Your task to perform on an android device: Search for pizza restaurants on Maps Image 0: 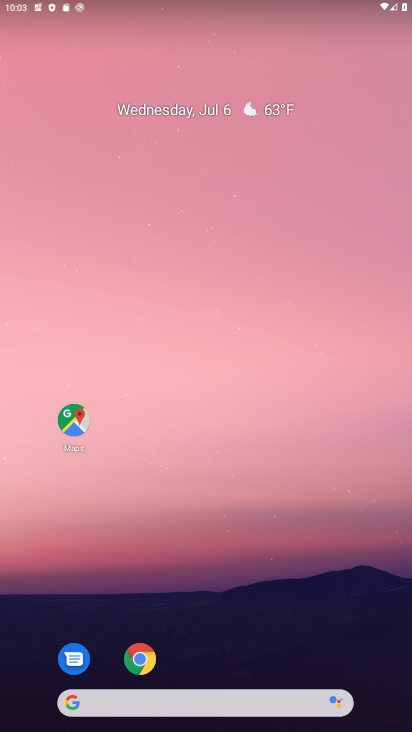
Step 0: drag from (214, 652) to (270, 211)
Your task to perform on an android device: Search for pizza restaurants on Maps Image 1: 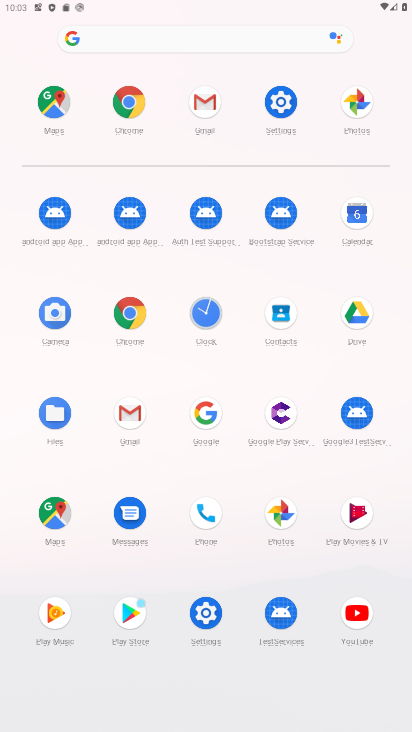
Step 1: click (52, 520)
Your task to perform on an android device: Search for pizza restaurants on Maps Image 2: 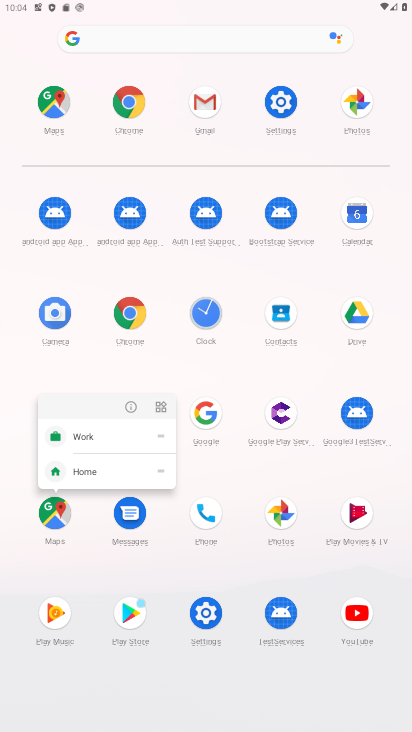
Step 2: click (128, 407)
Your task to perform on an android device: Search for pizza restaurants on Maps Image 3: 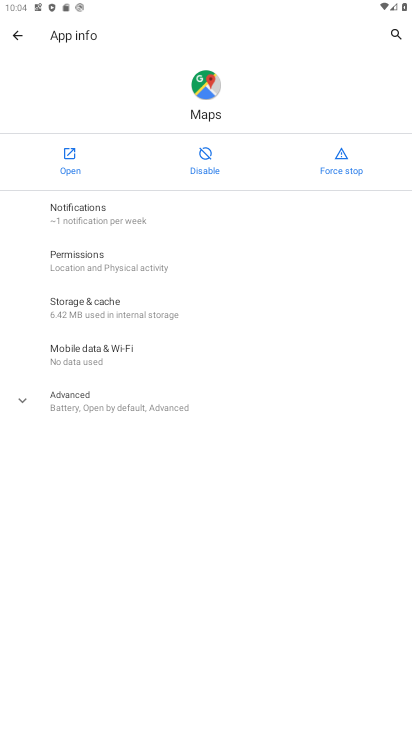
Step 3: click (64, 162)
Your task to perform on an android device: Search for pizza restaurants on Maps Image 4: 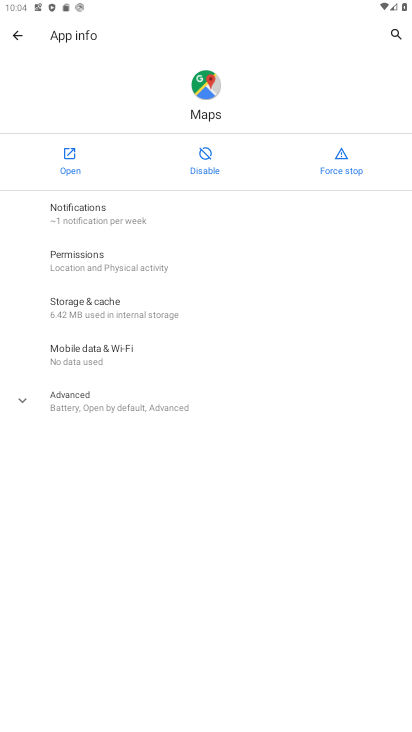
Step 4: click (64, 162)
Your task to perform on an android device: Search for pizza restaurants on Maps Image 5: 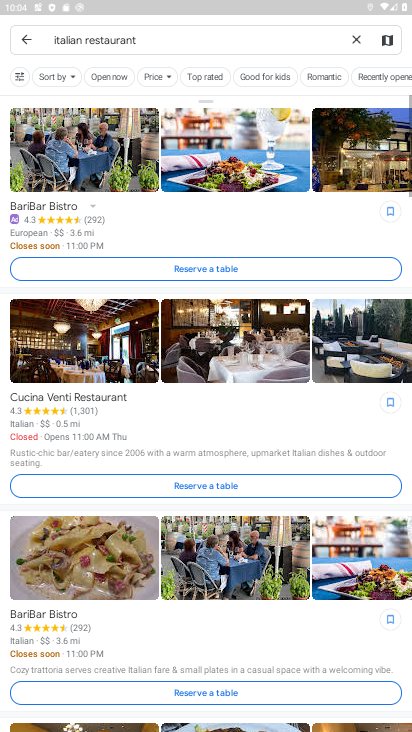
Step 5: click (357, 43)
Your task to perform on an android device: Search for pizza restaurants on Maps Image 6: 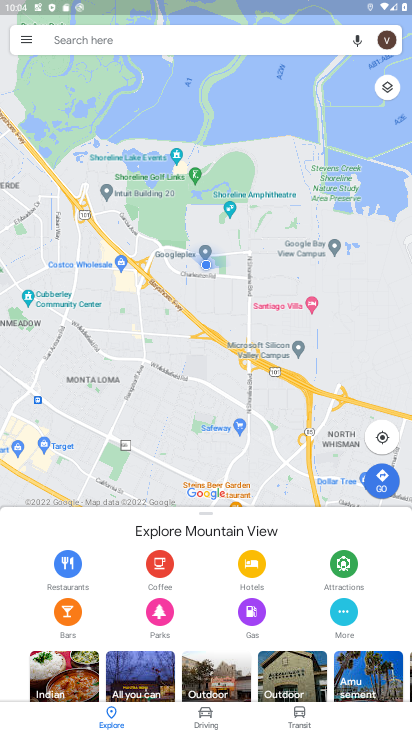
Step 6: click (203, 45)
Your task to perform on an android device: Search for pizza restaurants on Maps Image 7: 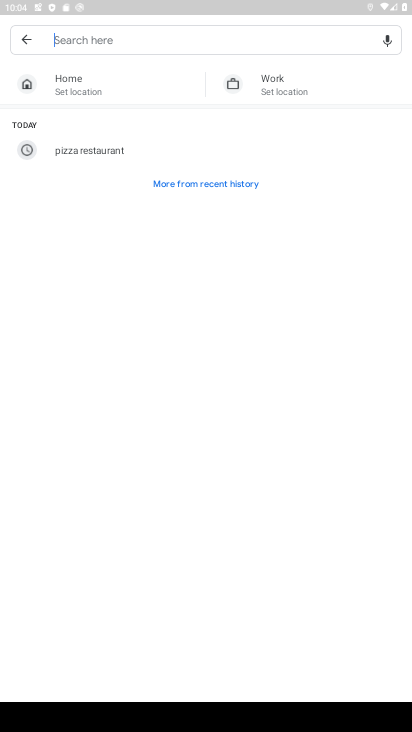
Step 7: type "pizza restaurants"
Your task to perform on an android device: Search for pizza restaurants on Maps Image 8: 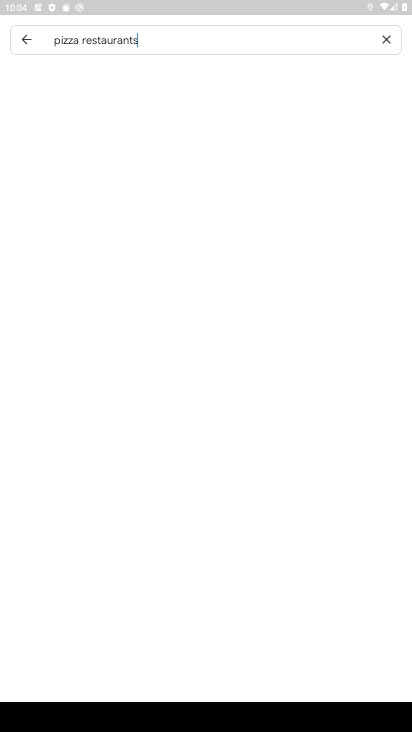
Step 8: type ""
Your task to perform on an android device: Search for pizza restaurants on Maps Image 9: 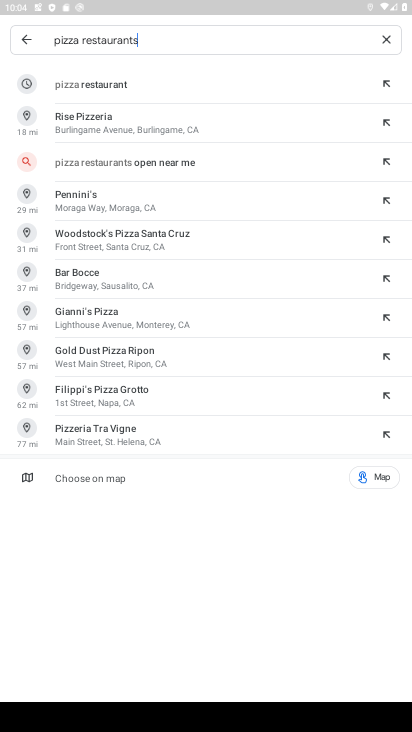
Step 9: click (178, 93)
Your task to perform on an android device: Search for pizza restaurants on Maps Image 10: 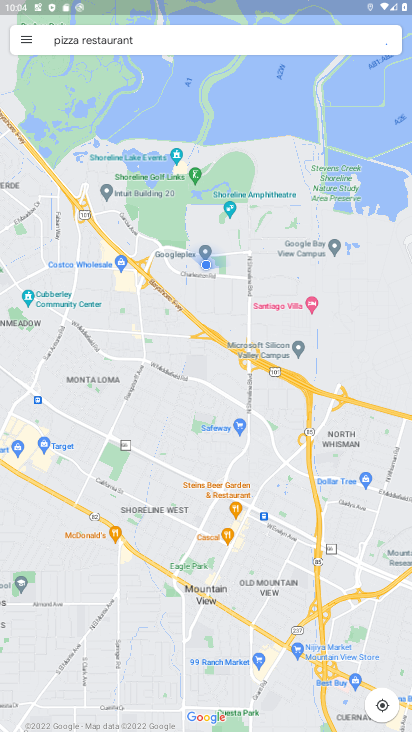
Step 10: task complete